Your task to perform on an android device: change the upload size in google photos Image 0: 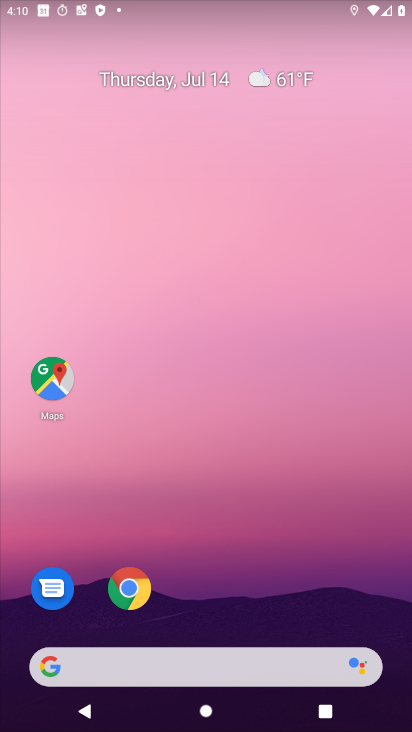
Step 0: drag from (227, 663) to (267, 173)
Your task to perform on an android device: change the upload size in google photos Image 1: 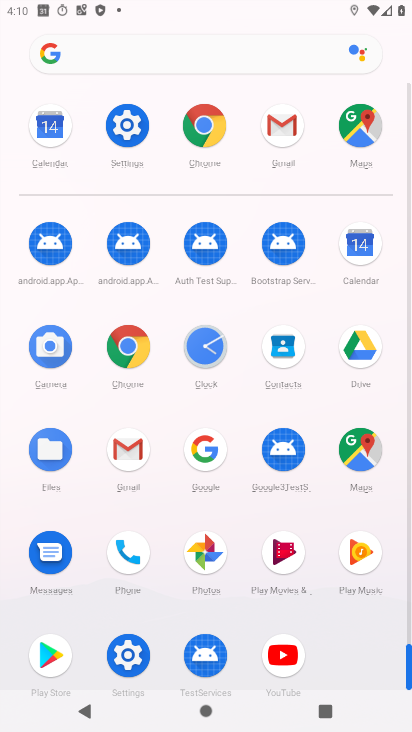
Step 1: click (204, 552)
Your task to perform on an android device: change the upload size in google photos Image 2: 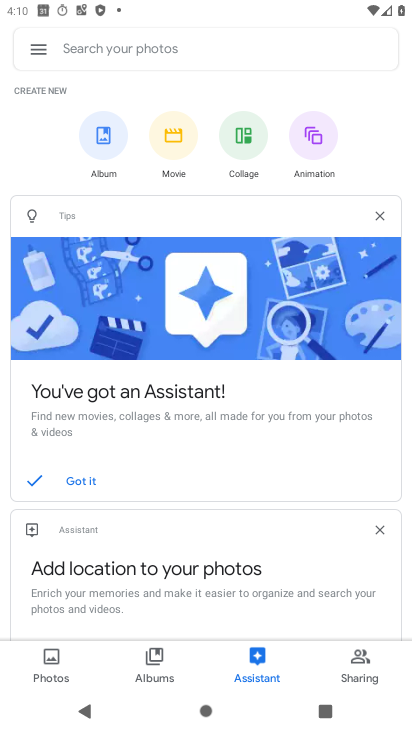
Step 2: click (41, 48)
Your task to perform on an android device: change the upload size in google photos Image 3: 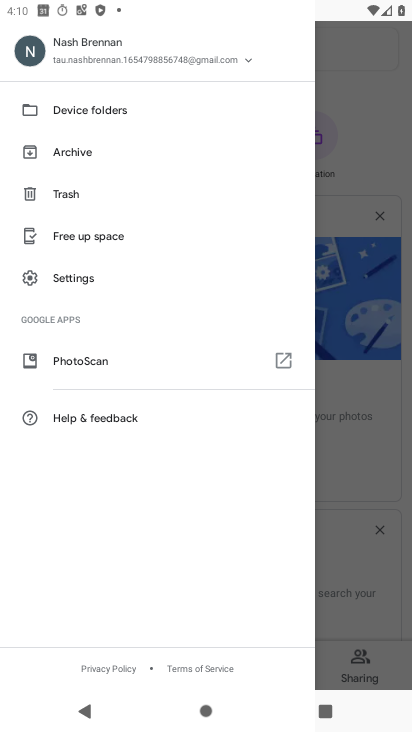
Step 3: click (64, 277)
Your task to perform on an android device: change the upload size in google photos Image 4: 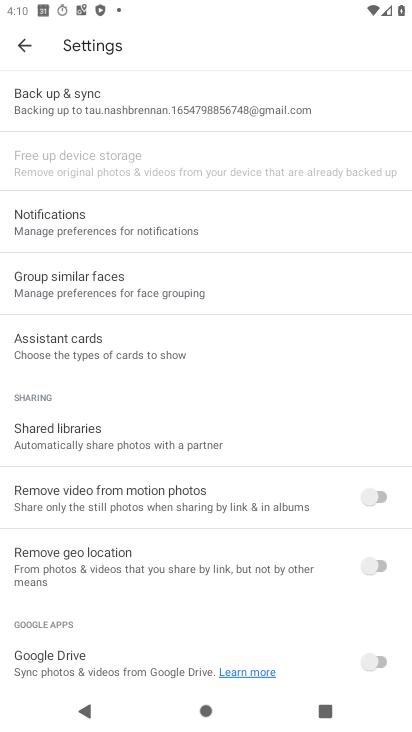
Step 4: click (89, 105)
Your task to perform on an android device: change the upload size in google photos Image 5: 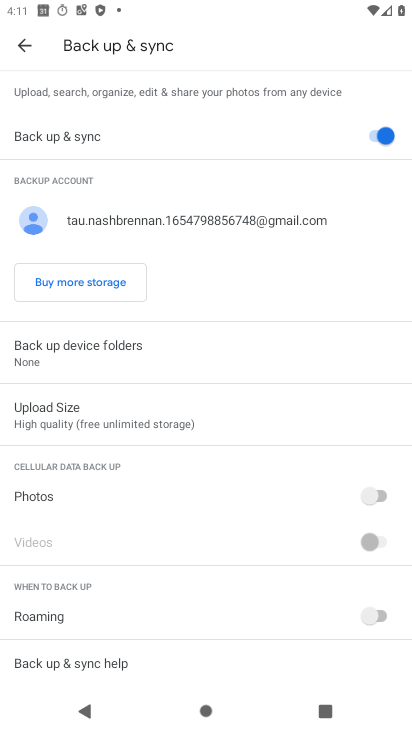
Step 5: click (97, 420)
Your task to perform on an android device: change the upload size in google photos Image 6: 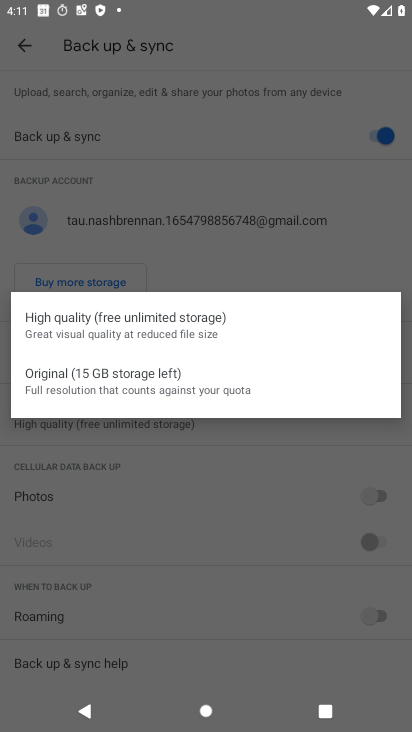
Step 6: click (105, 389)
Your task to perform on an android device: change the upload size in google photos Image 7: 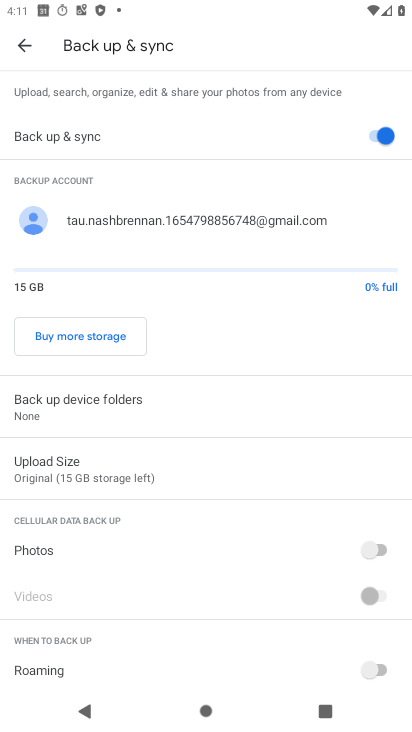
Step 7: task complete